Your task to perform on an android device: Search for 3d printed chess sets on Etsy. Image 0: 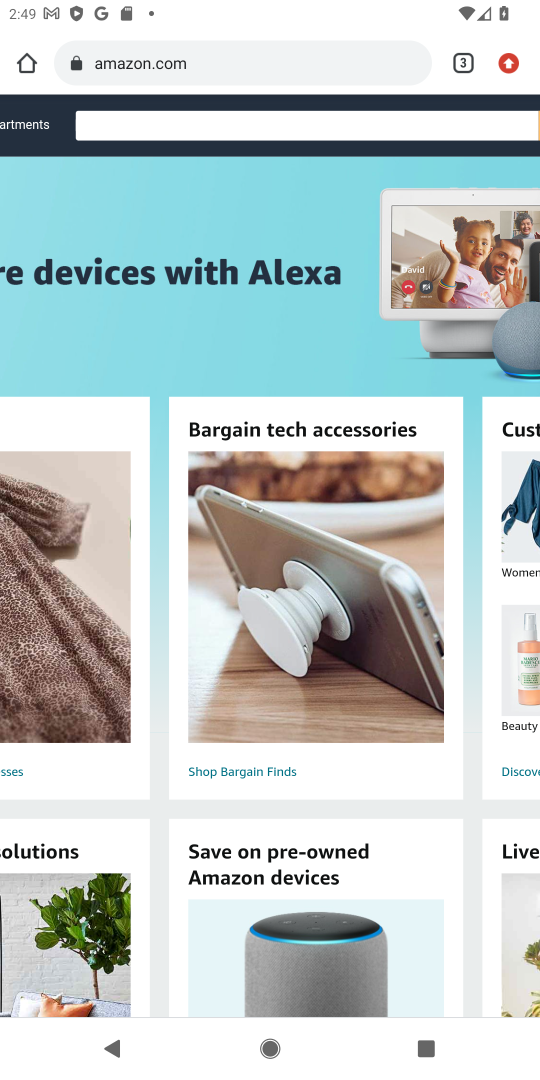
Step 0: press home button
Your task to perform on an android device: Search for 3d printed chess sets on Etsy. Image 1: 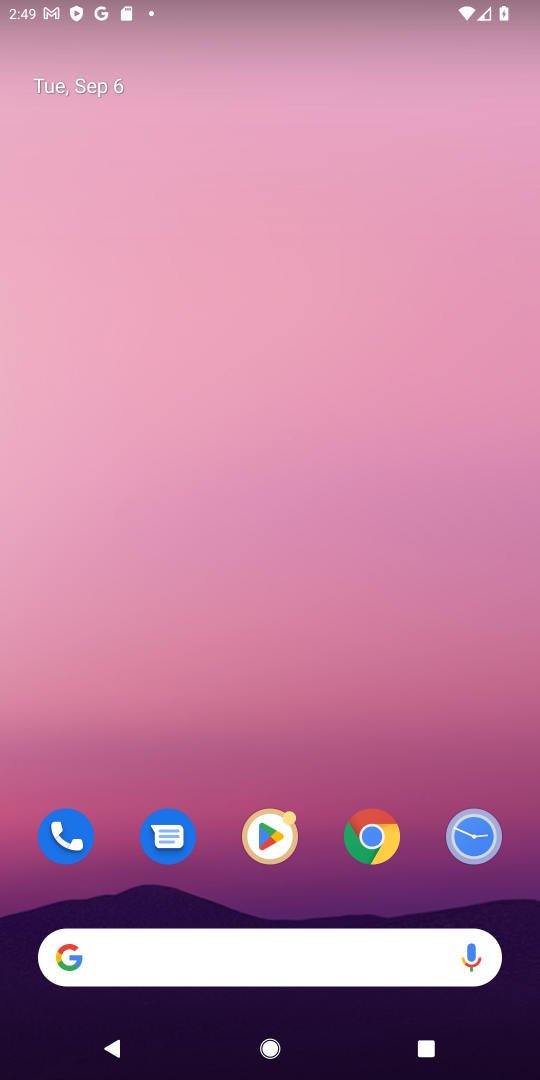
Step 1: click (289, 950)
Your task to perform on an android device: Search for 3d printed chess sets on Etsy. Image 2: 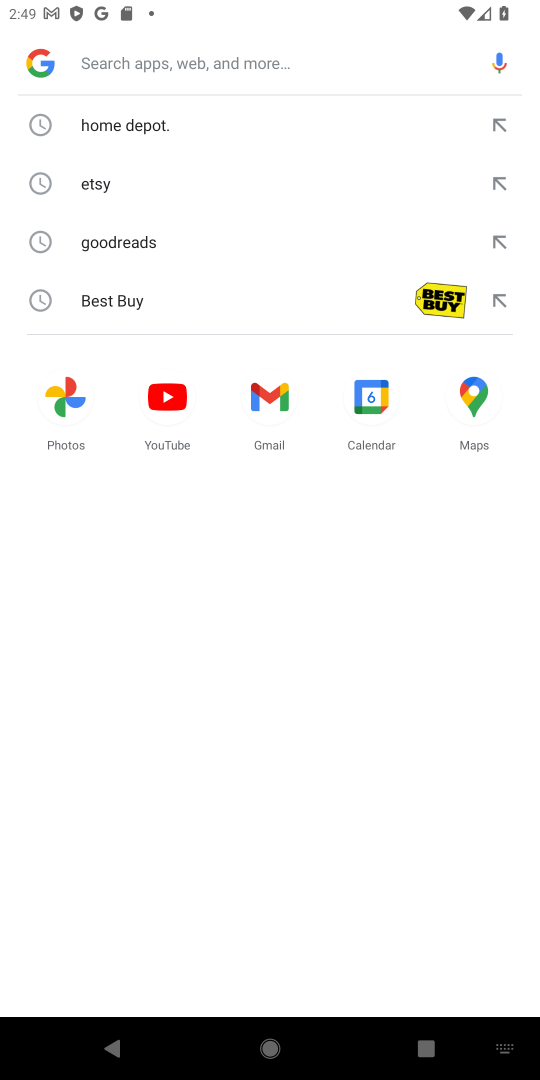
Step 2: click (99, 181)
Your task to perform on an android device: Search for 3d printed chess sets on Etsy. Image 3: 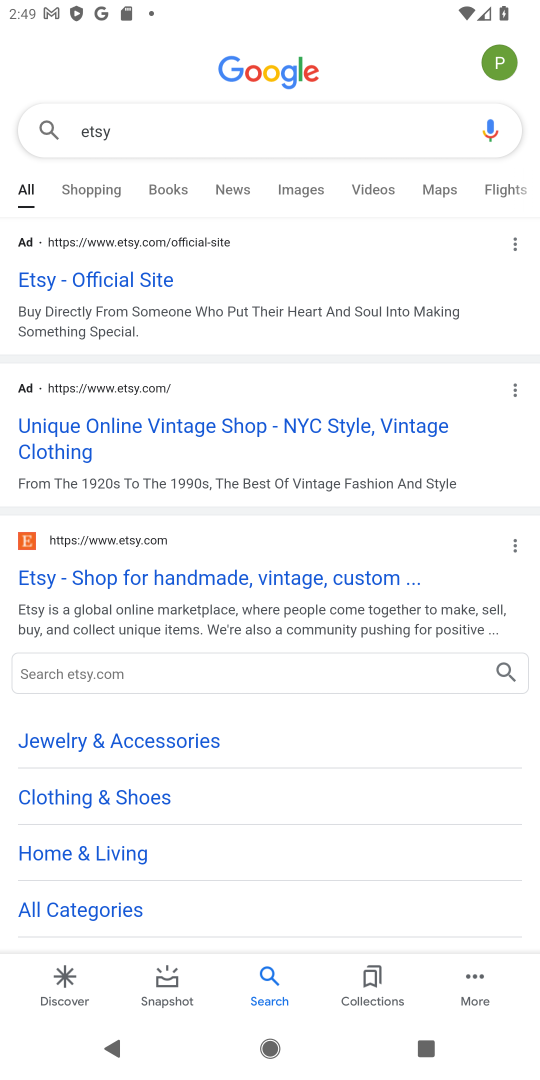
Step 3: click (90, 572)
Your task to perform on an android device: Search for 3d printed chess sets on Etsy. Image 4: 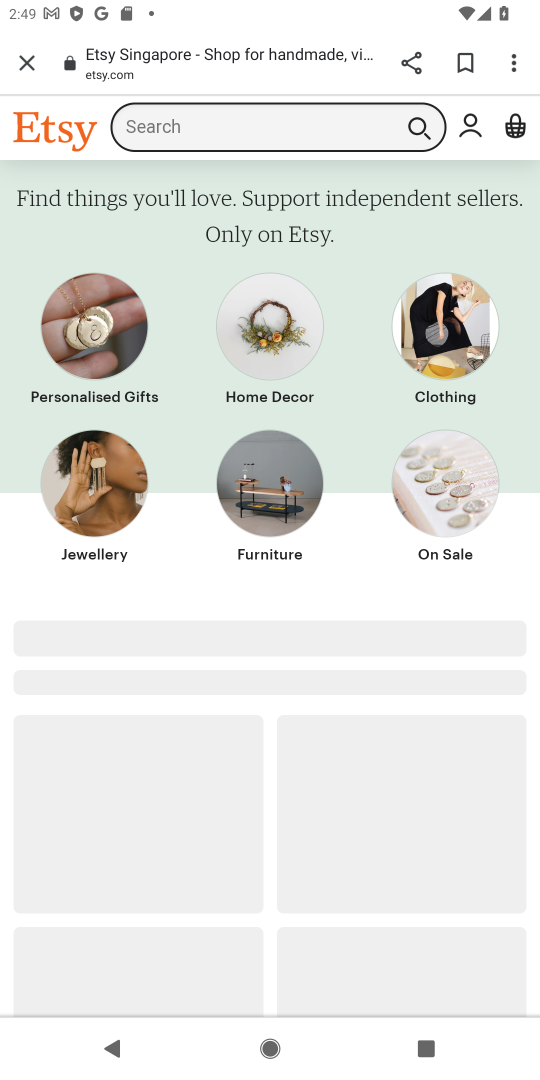
Step 4: click (168, 123)
Your task to perform on an android device: Search for 3d printed chess sets on Etsy. Image 5: 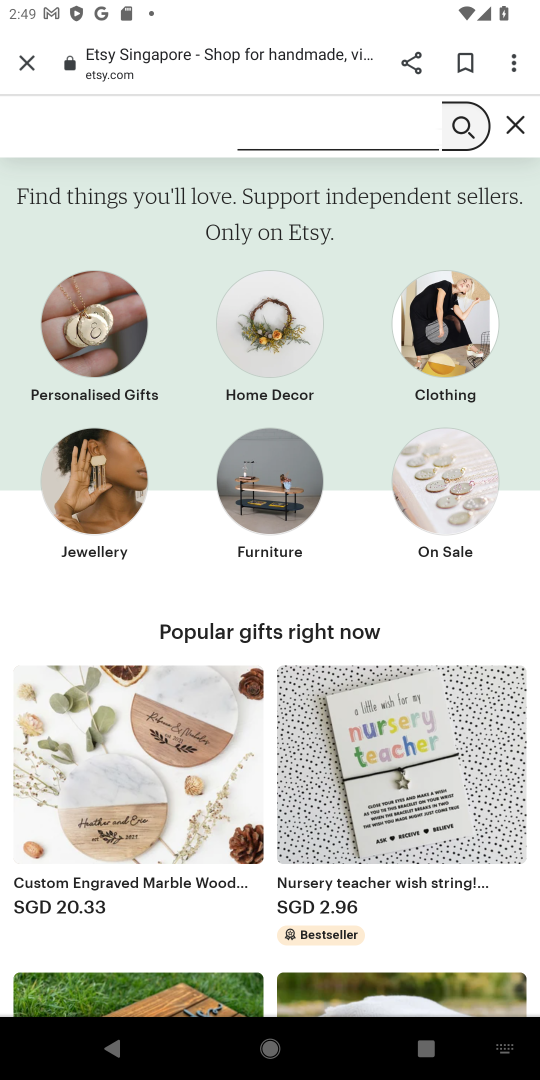
Step 5: type "3d printed chess sets"
Your task to perform on an android device: Search for 3d printed chess sets on Etsy. Image 6: 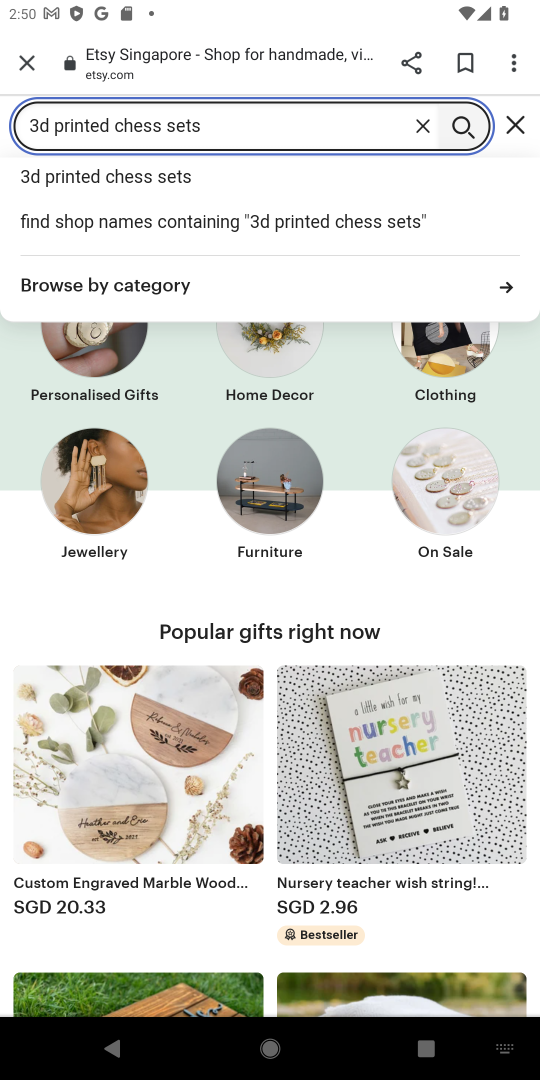
Step 6: click (465, 112)
Your task to perform on an android device: Search for 3d printed chess sets on Etsy. Image 7: 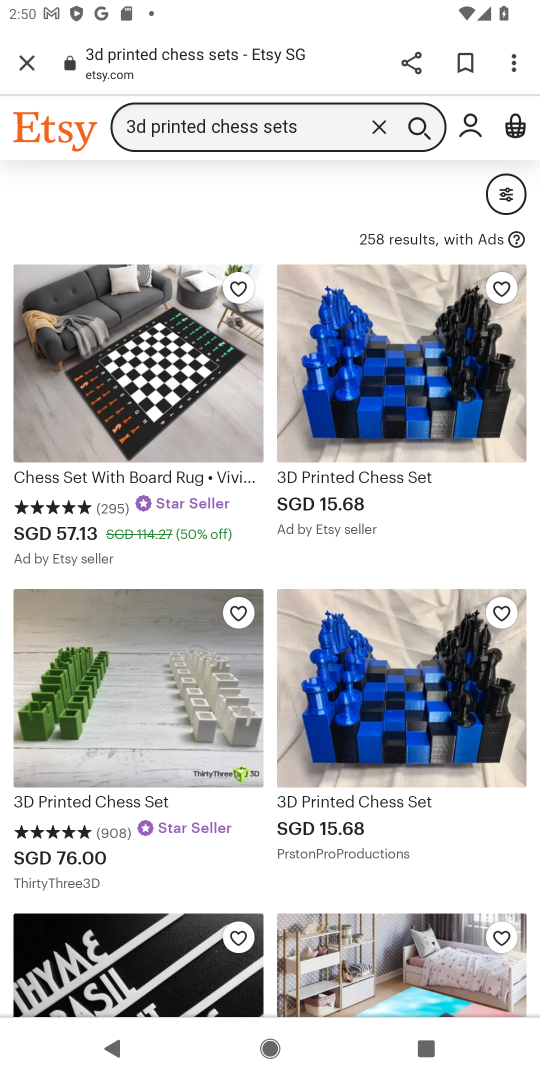
Step 7: task complete